Your task to perform on an android device: open app "Expedia: Hotels, Flights & Car" Image 0: 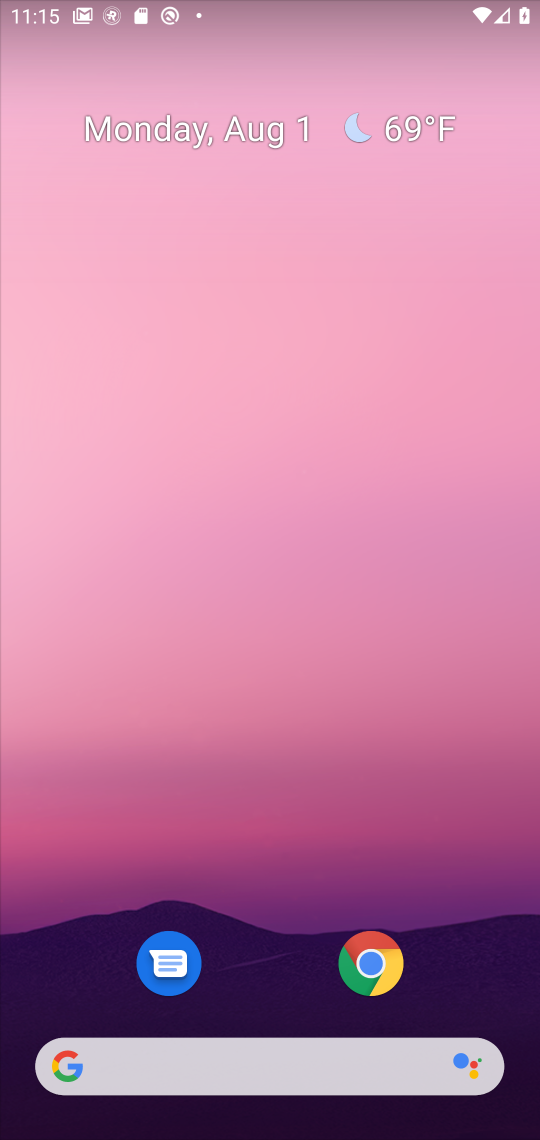
Step 0: drag from (276, 702) to (242, 0)
Your task to perform on an android device: open app "Expedia: Hotels, Flights & Car" Image 1: 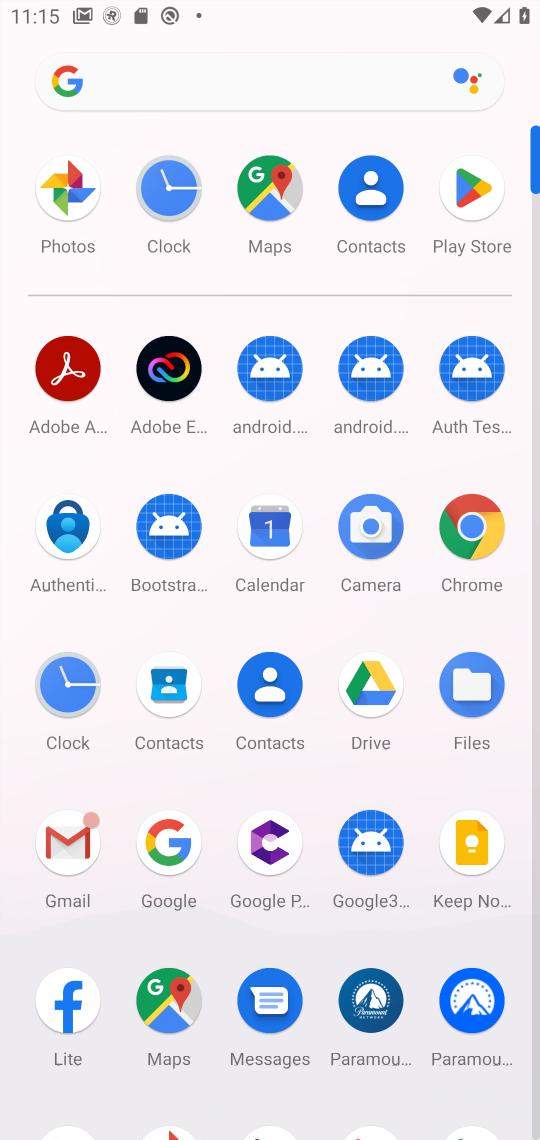
Step 1: click (483, 189)
Your task to perform on an android device: open app "Expedia: Hotels, Flights & Car" Image 2: 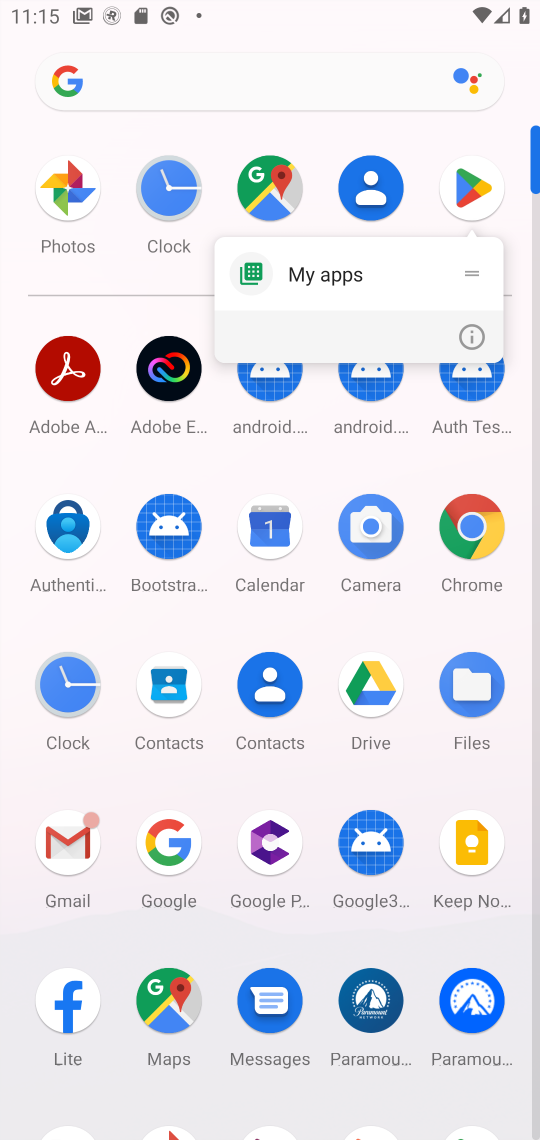
Step 2: click (483, 189)
Your task to perform on an android device: open app "Expedia: Hotels, Flights & Car" Image 3: 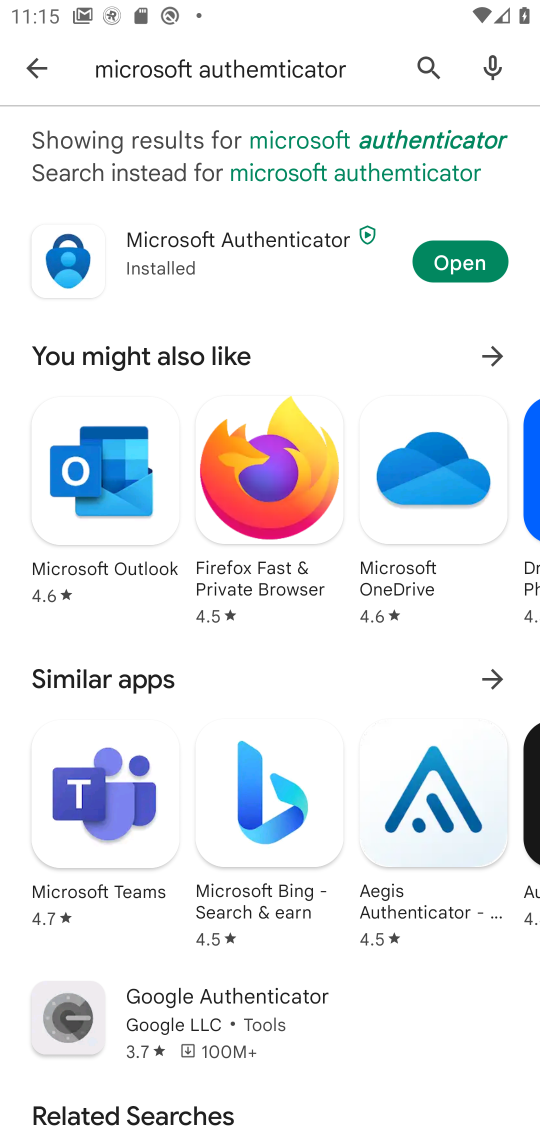
Step 3: click (204, 71)
Your task to perform on an android device: open app "Expedia: Hotels, Flights & Car" Image 4: 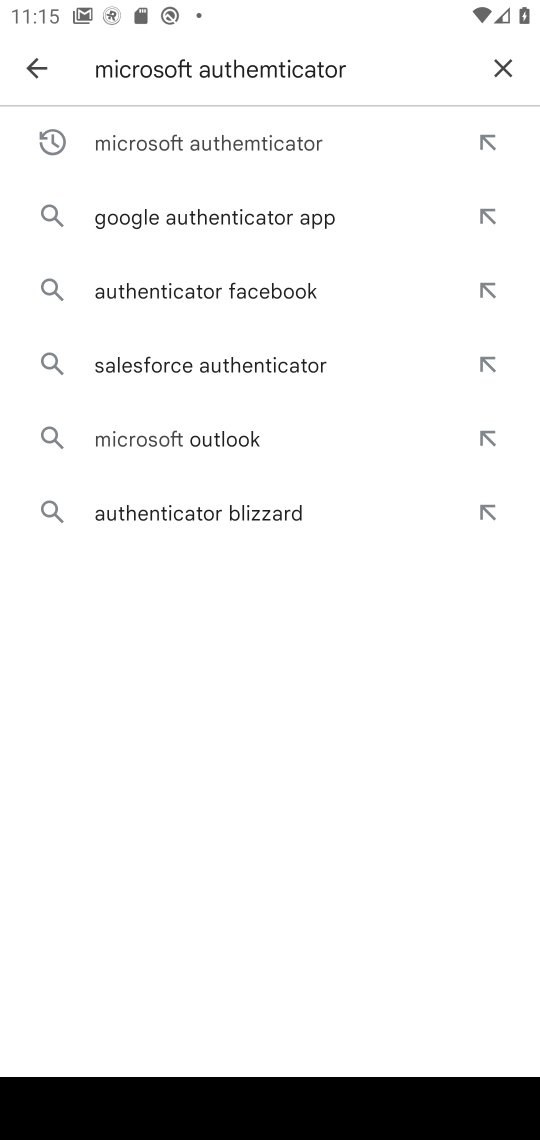
Step 4: click (502, 64)
Your task to perform on an android device: open app "Expedia: Hotels, Flights & Car" Image 5: 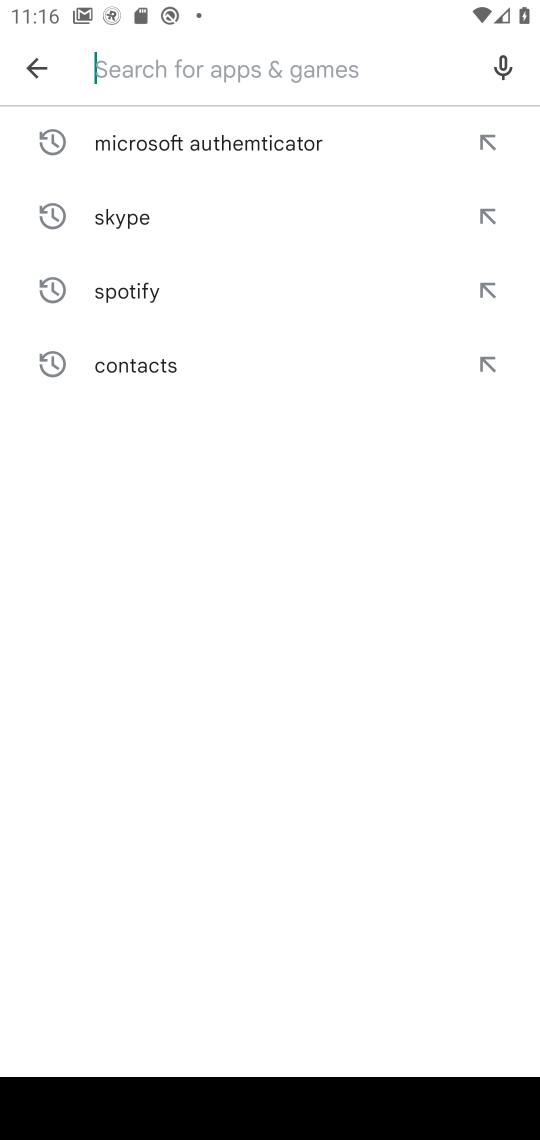
Step 5: type "expedia"
Your task to perform on an android device: open app "Expedia: Hotels, Flights & Car" Image 6: 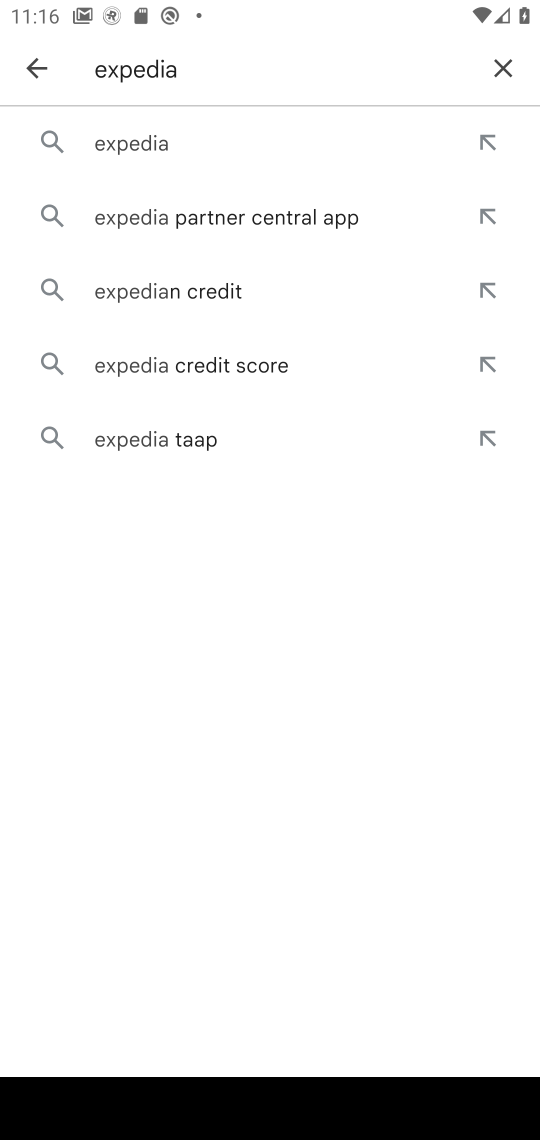
Step 6: click (180, 141)
Your task to perform on an android device: open app "Expedia: Hotels, Flights & Car" Image 7: 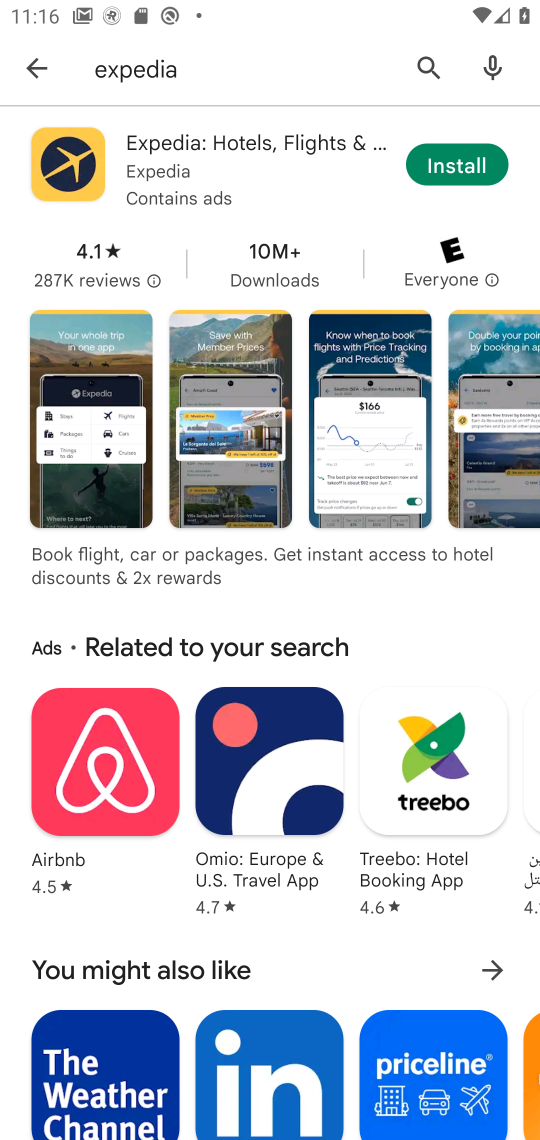
Step 7: task complete